Your task to perform on an android device: What's on my calendar today? Image 0: 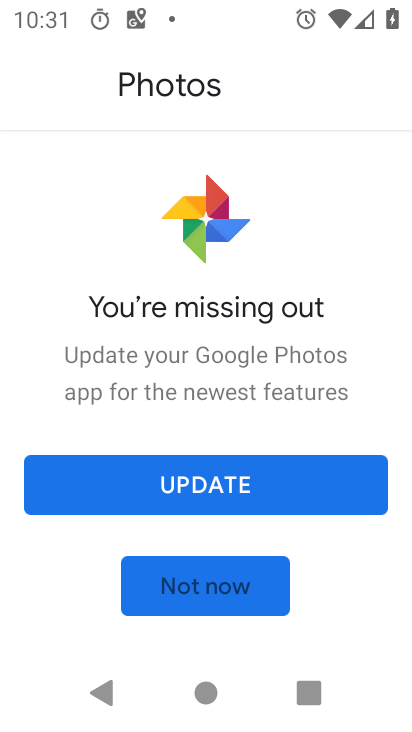
Step 0: press home button
Your task to perform on an android device: What's on my calendar today? Image 1: 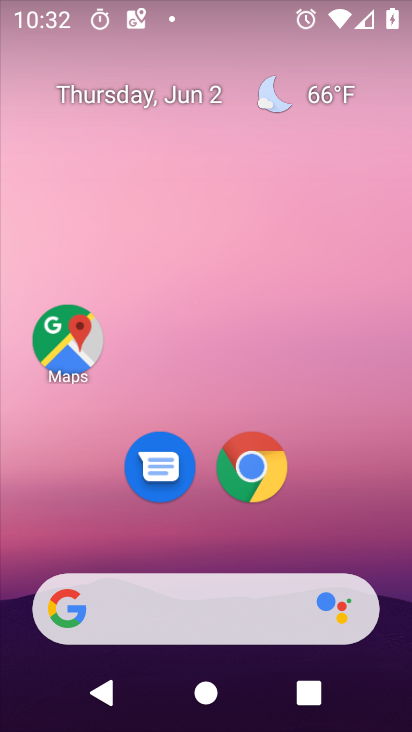
Step 1: drag from (43, 573) to (208, 192)
Your task to perform on an android device: What's on my calendar today? Image 2: 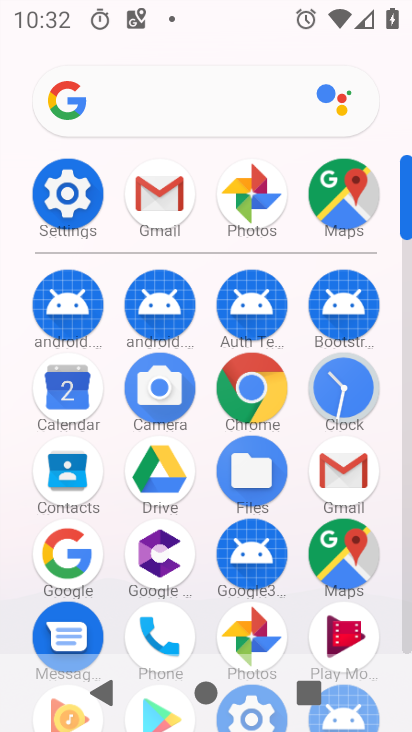
Step 2: click (45, 395)
Your task to perform on an android device: What's on my calendar today? Image 3: 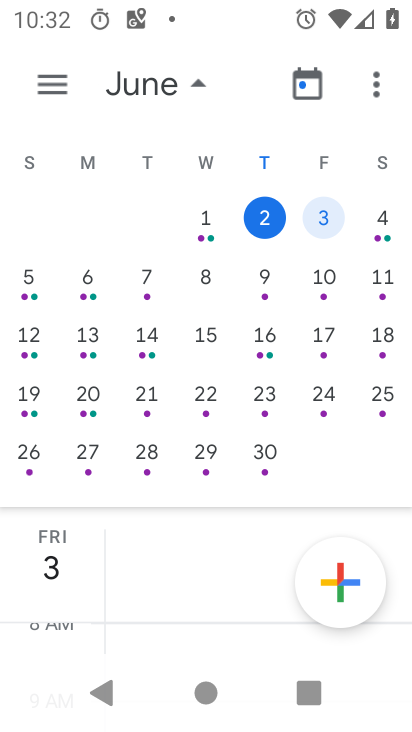
Step 3: click (326, 215)
Your task to perform on an android device: What's on my calendar today? Image 4: 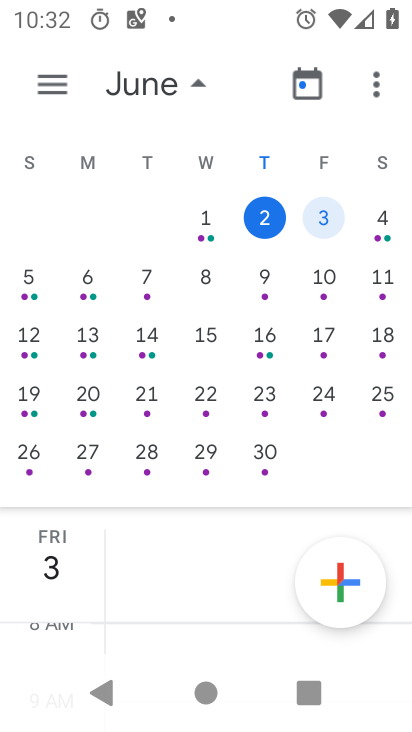
Step 4: task complete